Your task to perform on an android device: turn on airplane mode Image 0: 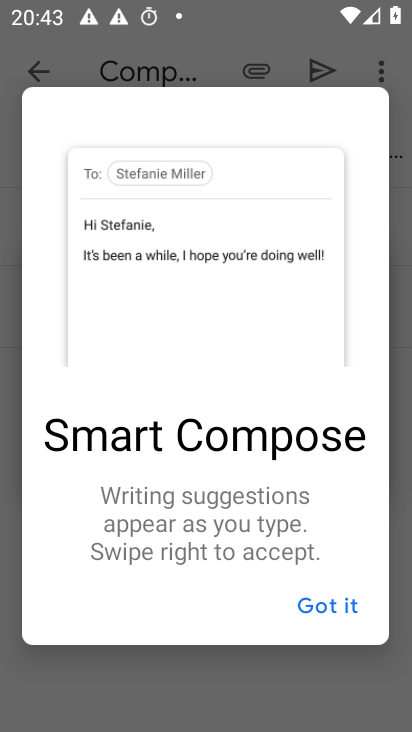
Step 0: press home button
Your task to perform on an android device: turn on airplane mode Image 1: 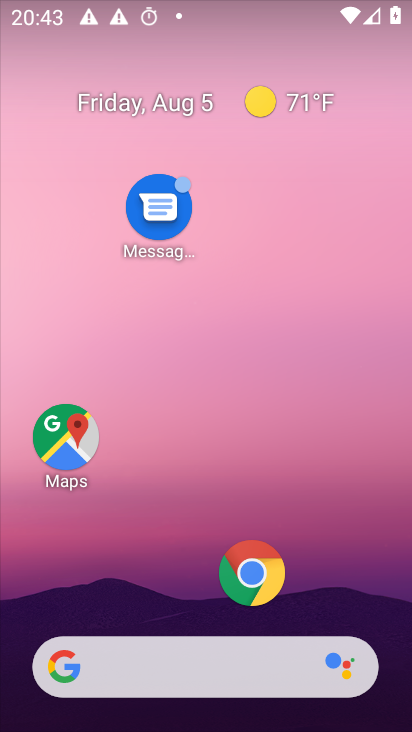
Step 1: drag from (200, 612) to (246, 163)
Your task to perform on an android device: turn on airplane mode Image 2: 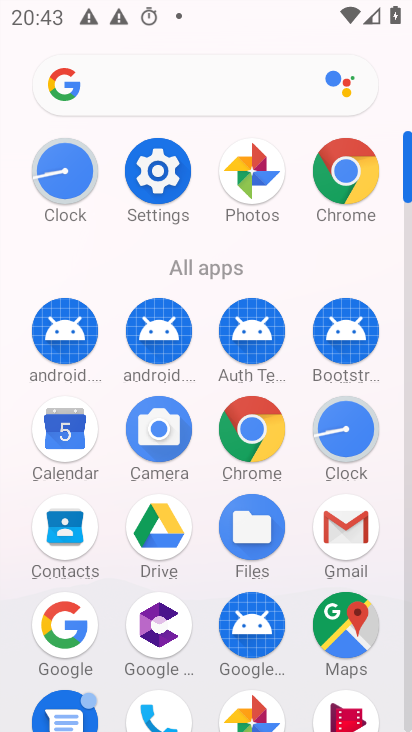
Step 2: drag from (222, 12) to (248, 597)
Your task to perform on an android device: turn on airplane mode Image 3: 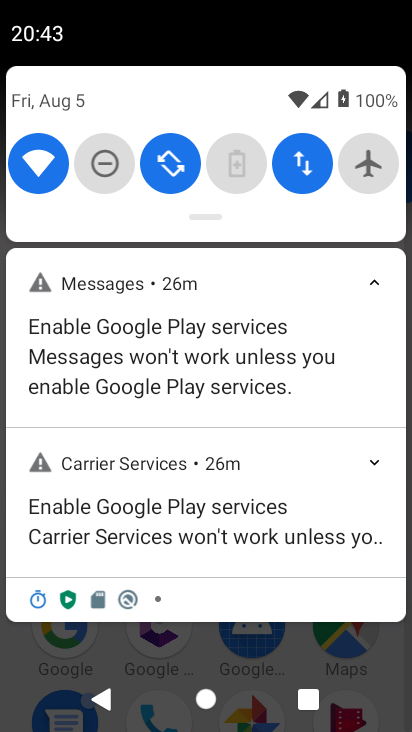
Step 3: click (365, 166)
Your task to perform on an android device: turn on airplane mode Image 4: 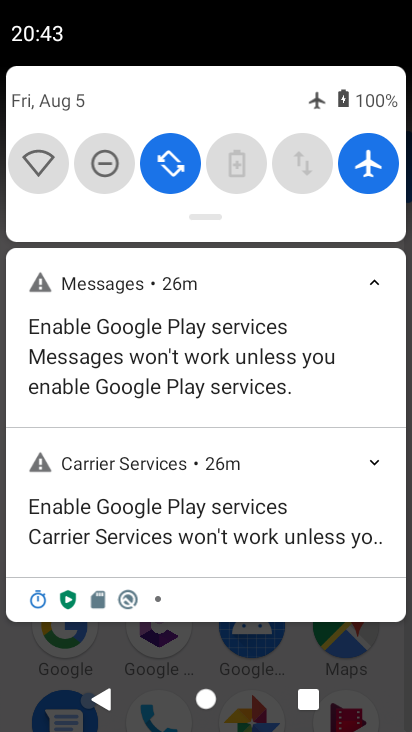
Step 4: task complete